Your task to perform on an android device: turn smart compose on in the gmail app Image 0: 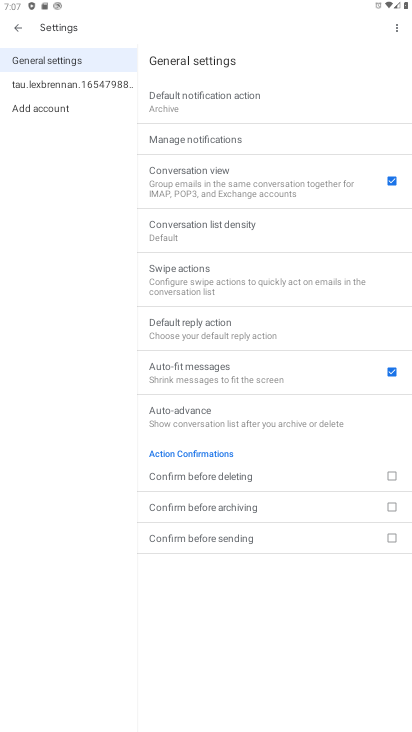
Step 0: press home button
Your task to perform on an android device: turn smart compose on in the gmail app Image 1: 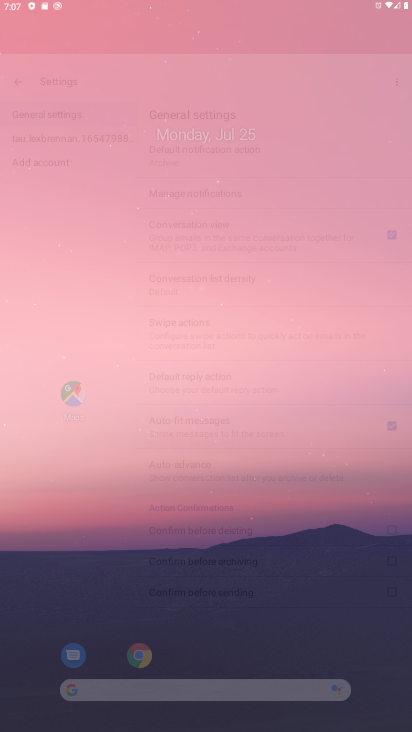
Step 1: drag from (394, 660) to (324, 5)
Your task to perform on an android device: turn smart compose on in the gmail app Image 2: 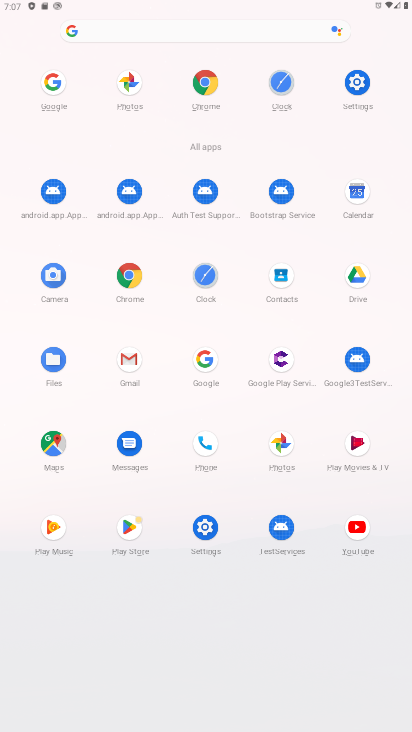
Step 2: click (142, 365)
Your task to perform on an android device: turn smart compose on in the gmail app Image 3: 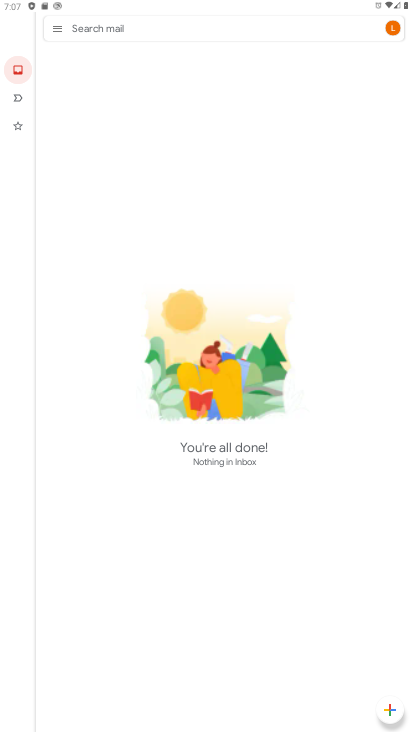
Step 3: click (54, 25)
Your task to perform on an android device: turn smart compose on in the gmail app Image 4: 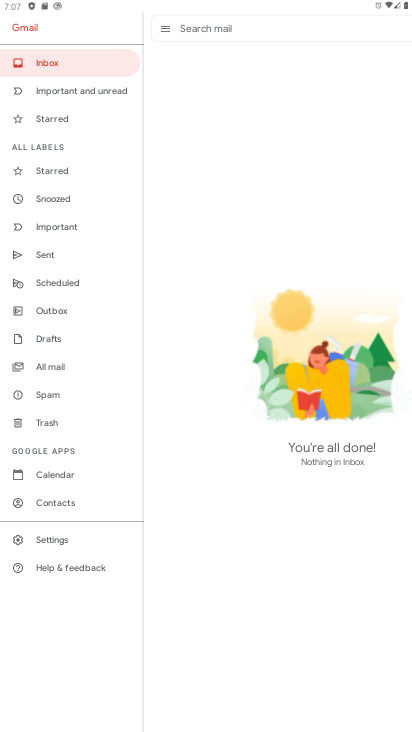
Step 4: click (45, 538)
Your task to perform on an android device: turn smart compose on in the gmail app Image 5: 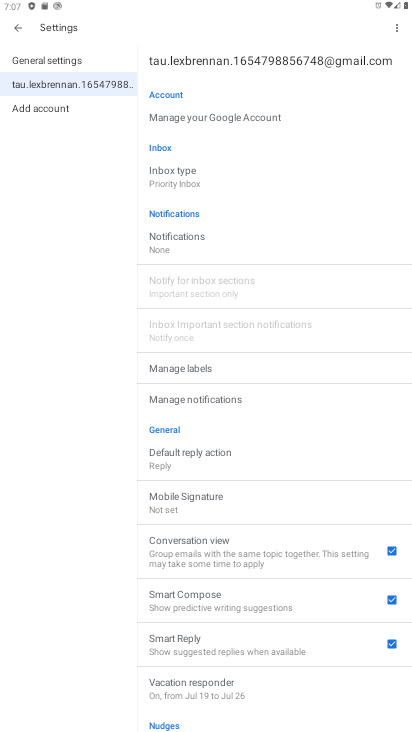
Step 5: task complete